Your task to perform on an android device: turn off data saver in the chrome app Image 0: 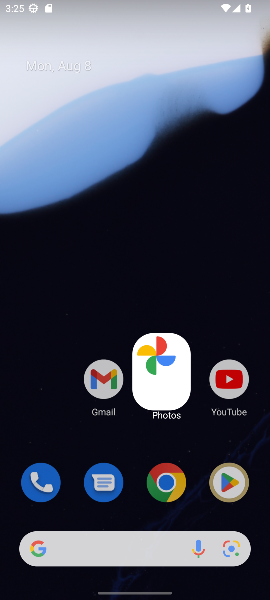
Step 0: click (105, 147)
Your task to perform on an android device: turn off data saver in the chrome app Image 1: 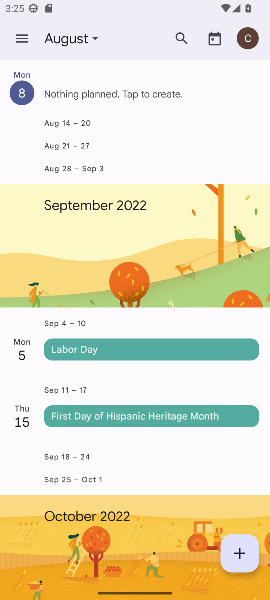
Step 1: press back button
Your task to perform on an android device: turn off data saver in the chrome app Image 2: 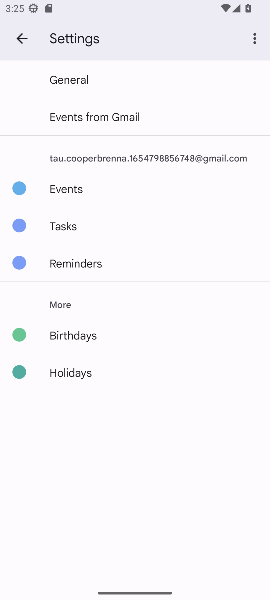
Step 2: click (24, 38)
Your task to perform on an android device: turn off data saver in the chrome app Image 3: 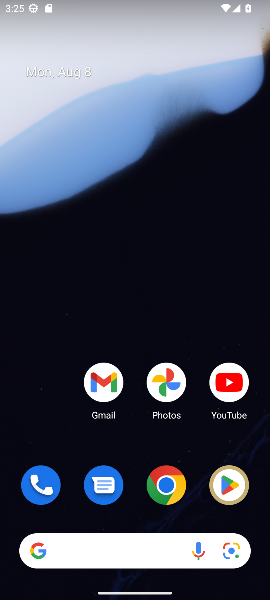
Step 3: click (165, 480)
Your task to perform on an android device: turn off data saver in the chrome app Image 4: 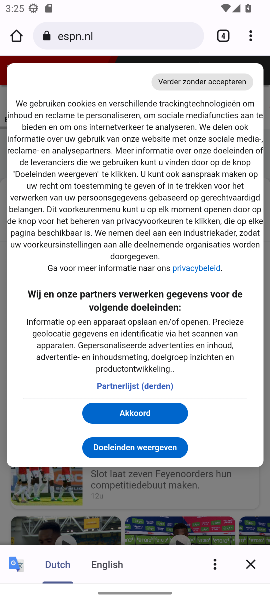
Step 4: drag from (246, 29) to (134, 457)
Your task to perform on an android device: turn off data saver in the chrome app Image 5: 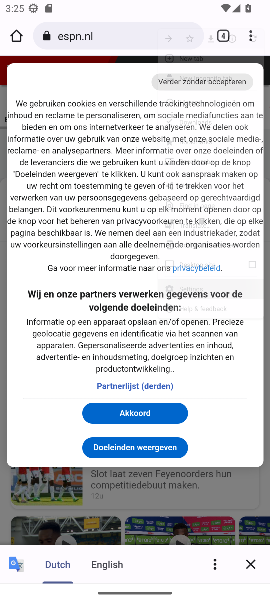
Step 5: click (145, 462)
Your task to perform on an android device: turn off data saver in the chrome app Image 6: 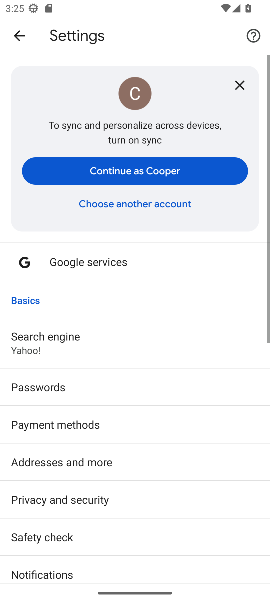
Step 6: task complete